Your task to perform on an android device: open chrome and create a bookmark for the current page Image 0: 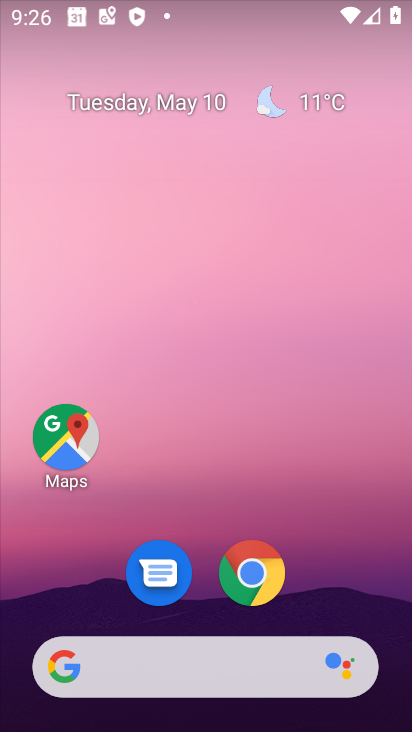
Step 0: click (247, 581)
Your task to perform on an android device: open chrome and create a bookmark for the current page Image 1: 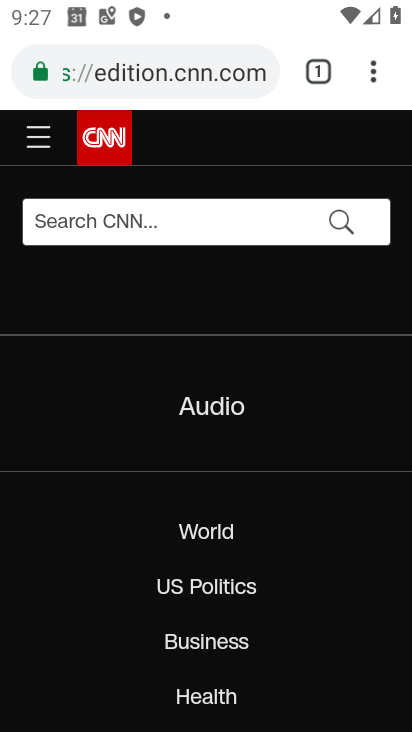
Step 1: click (374, 76)
Your task to perform on an android device: open chrome and create a bookmark for the current page Image 2: 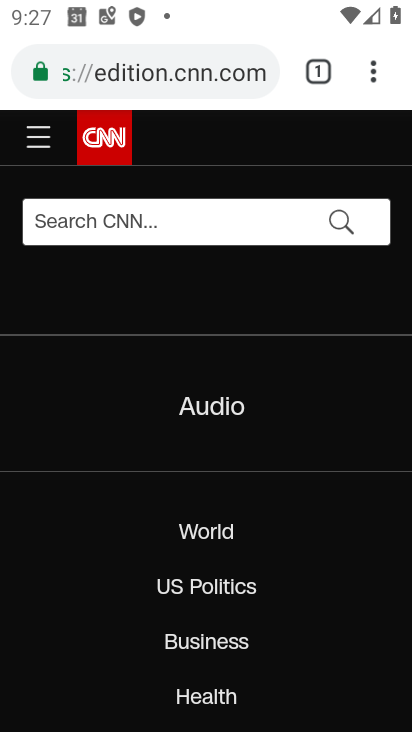
Step 2: task complete